Your task to perform on an android device: Open Google Chrome Image 0: 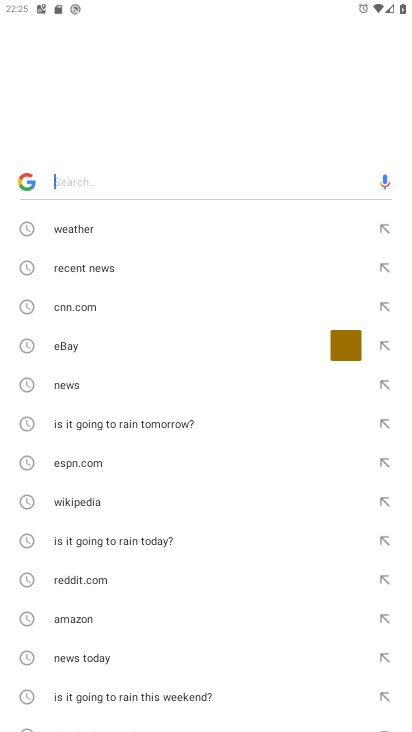
Step 0: press home button
Your task to perform on an android device: Open Google Chrome Image 1: 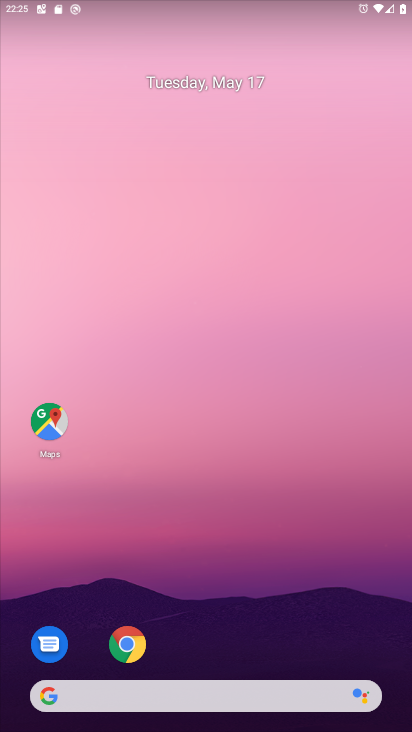
Step 1: click (124, 639)
Your task to perform on an android device: Open Google Chrome Image 2: 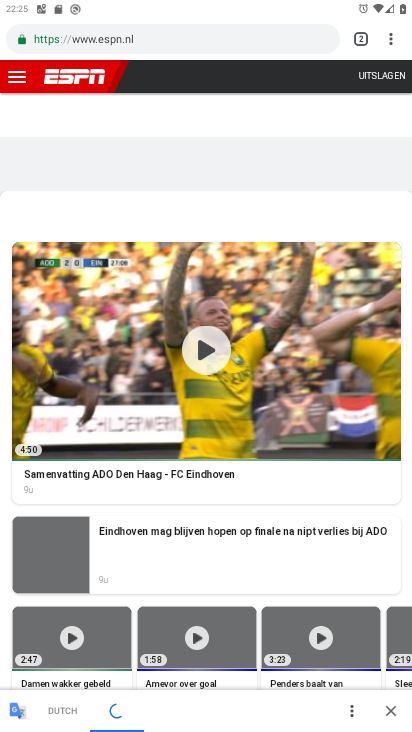
Step 2: task complete